Your task to perform on an android device: manage bookmarks in the chrome app Image 0: 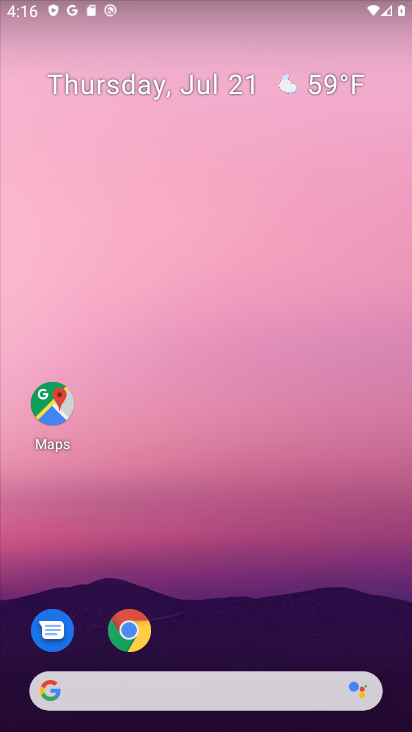
Step 0: drag from (246, 473) to (194, 142)
Your task to perform on an android device: manage bookmarks in the chrome app Image 1: 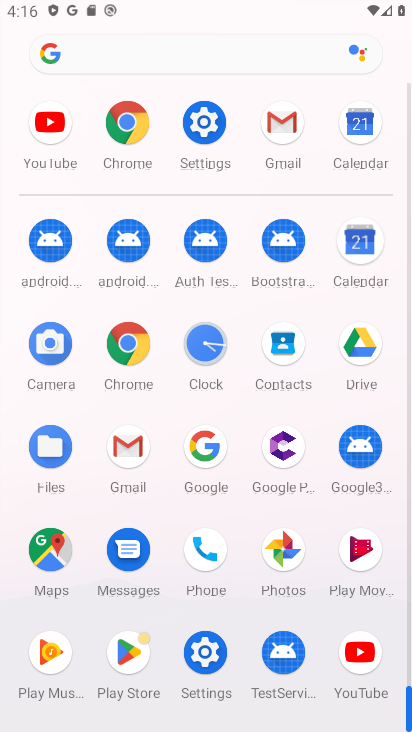
Step 1: click (131, 126)
Your task to perform on an android device: manage bookmarks in the chrome app Image 2: 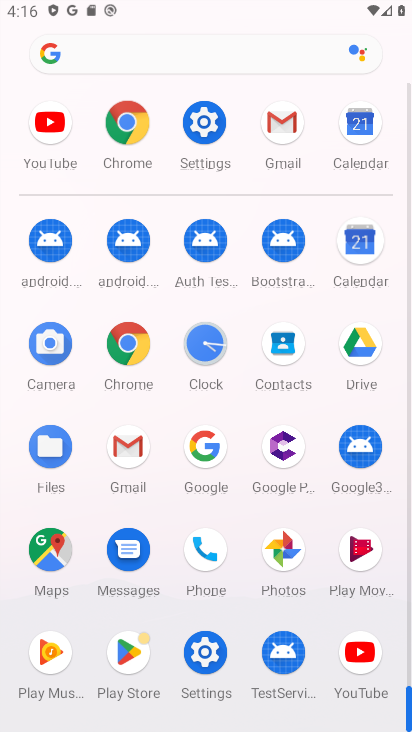
Step 2: click (132, 124)
Your task to perform on an android device: manage bookmarks in the chrome app Image 3: 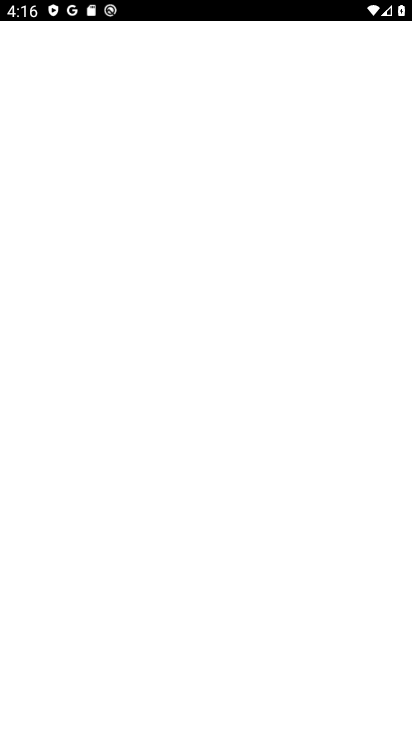
Step 3: click (134, 122)
Your task to perform on an android device: manage bookmarks in the chrome app Image 4: 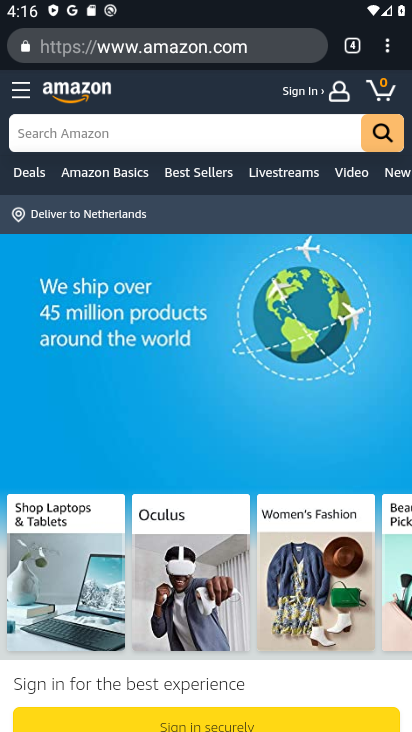
Step 4: drag from (389, 50) to (240, 179)
Your task to perform on an android device: manage bookmarks in the chrome app Image 5: 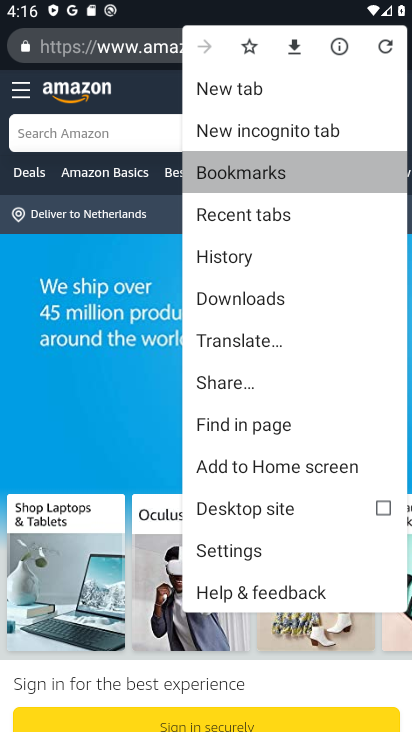
Step 5: click (241, 178)
Your task to perform on an android device: manage bookmarks in the chrome app Image 6: 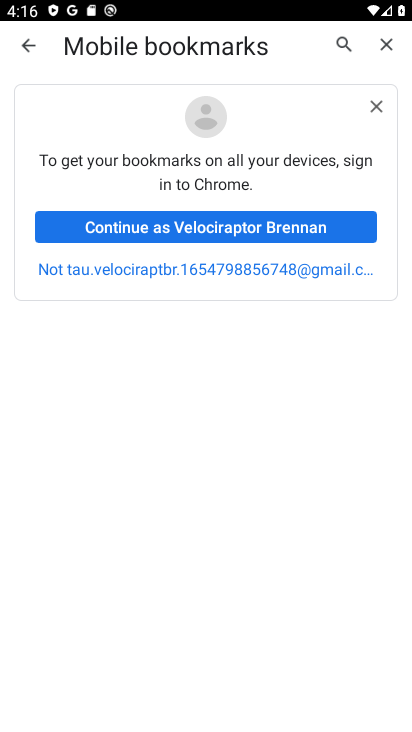
Step 6: click (369, 103)
Your task to perform on an android device: manage bookmarks in the chrome app Image 7: 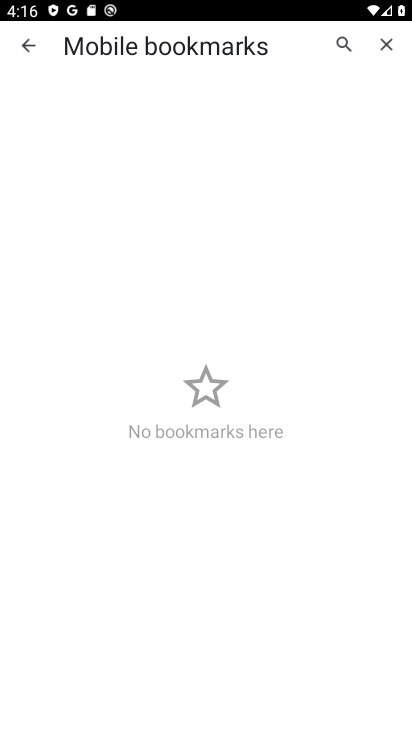
Step 7: task complete